Your task to perform on an android device: Open Google Chrome and click the shortcut for Amazon.com Image 0: 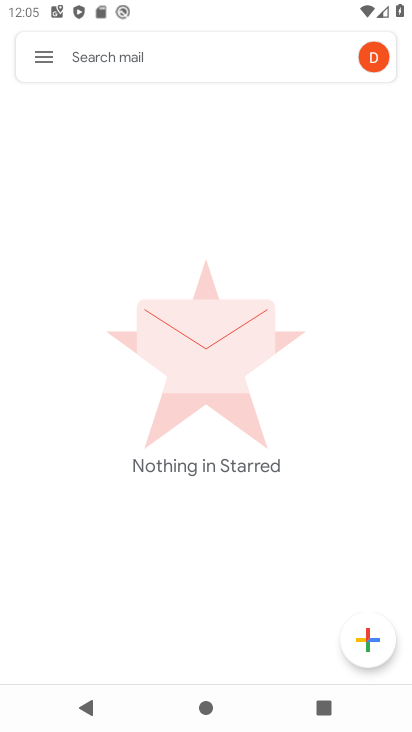
Step 0: press home button
Your task to perform on an android device: Open Google Chrome and click the shortcut for Amazon.com Image 1: 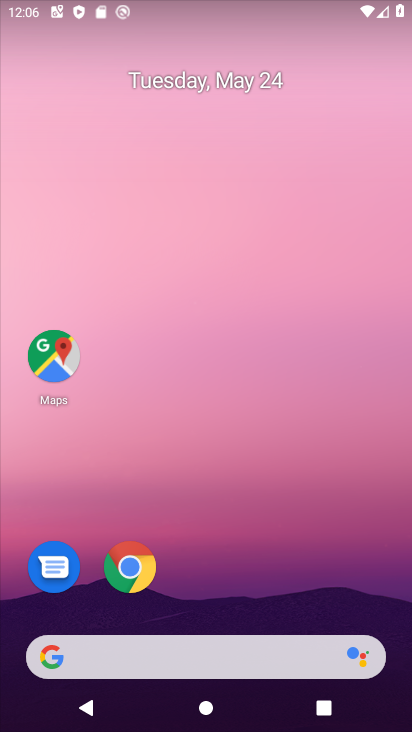
Step 1: click (137, 585)
Your task to perform on an android device: Open Google Chrome and click the shortcut for Amazon.com Image 2: 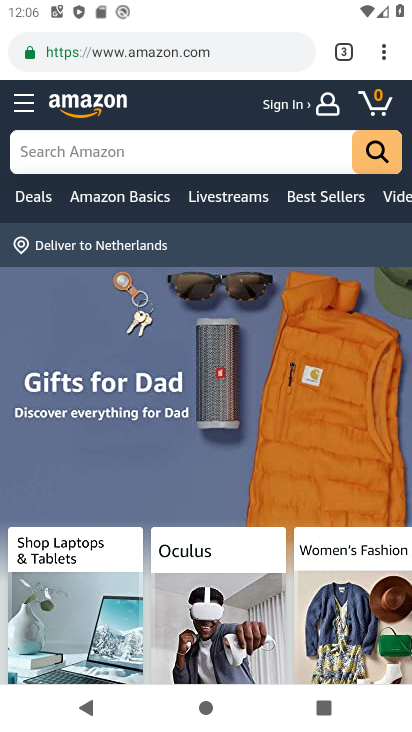
Step 2: task complete